Your task to perform on an android device: Do I have any events this weekend? Image 0: 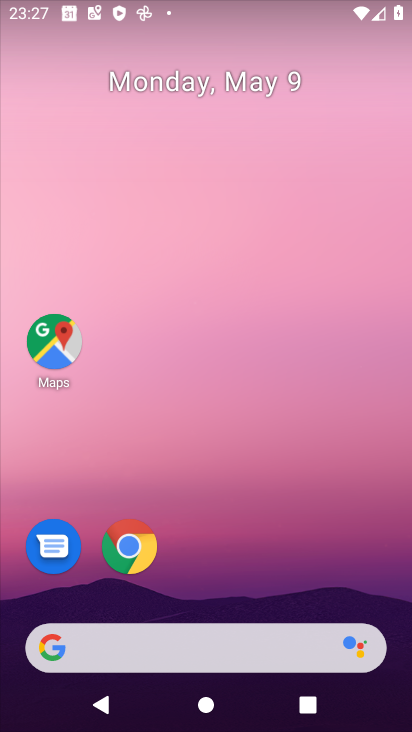
Step 0: drag from (261, 696) to (287, 27)
Your task to perform on an android device: Do I have any events this weekend? Image 1: 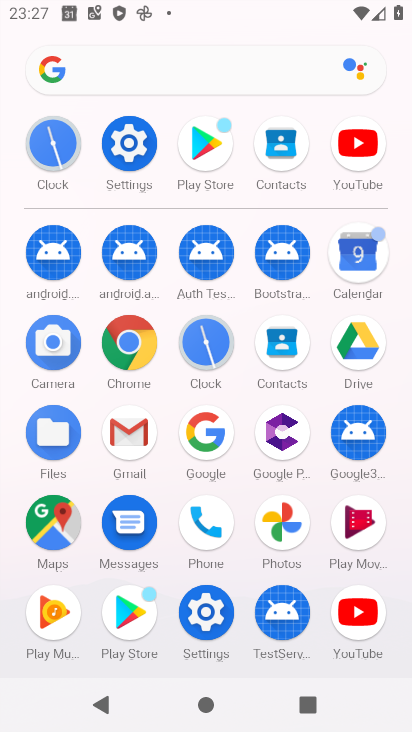
Step 1: click (372, 265)
Your task to perform on an android device: Do I have any events this weekend? Image 2: 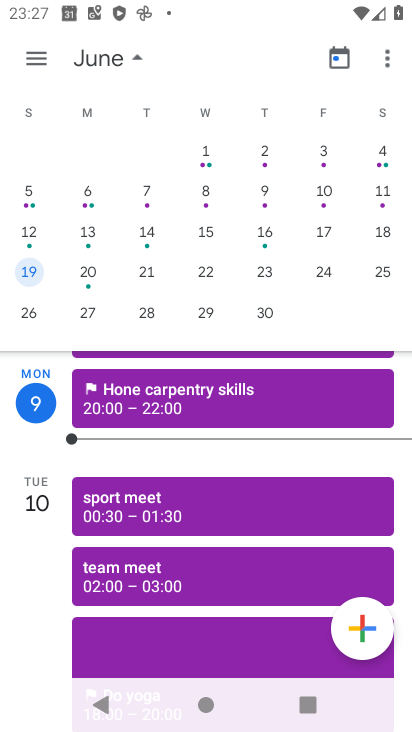
Step 2: drag from (87, 191) to (331, 207)
Your task to perform on an android device: Do I have any events this weekend? Image 3: 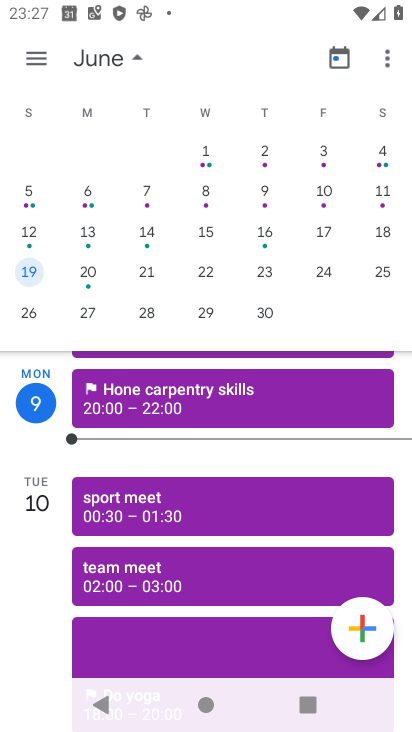
Step 3: drag from (6, 246) to (381, 293)
Your task to perform on an android device: Do I have any events this weekend? Image 4: 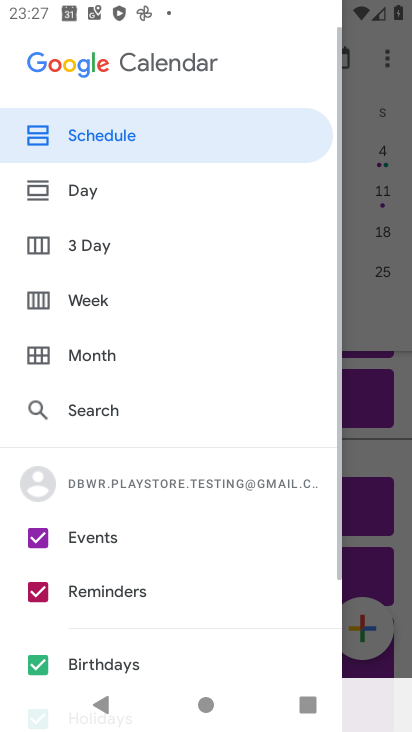
Step 4: click (373, 215)
Your task to perform on an android device: Do I have any events this weekend? Image 5: 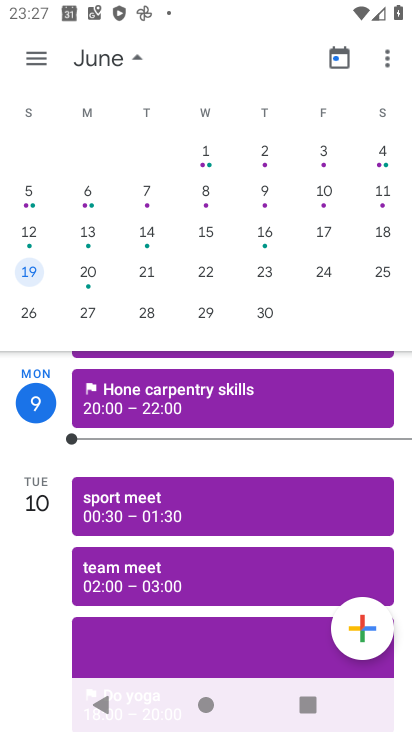
Step 5: drag from (62, 200) to (331, 249)
Your task to perform on an android device: Do I have any events this weekend? Image 6: 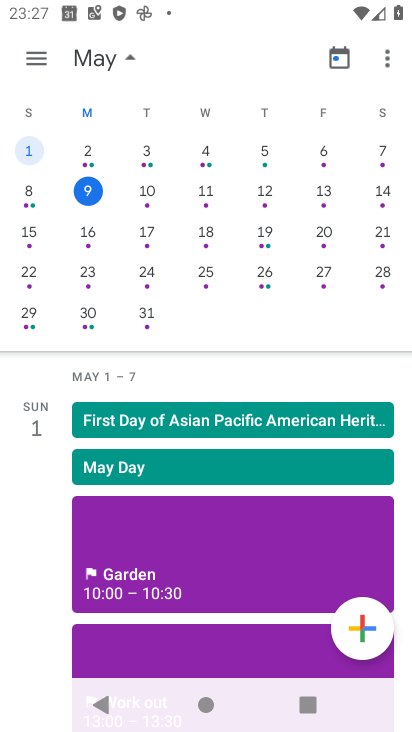
Step 6: click (385, 187)
Your task to perform on an android device: Do I have any events this weekend? Image 7: 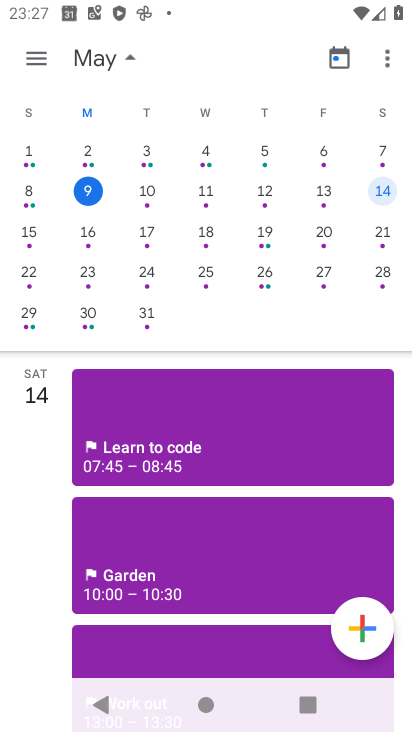
Step 7: task complete